Your task to perform on an android device: choose inbox layout in the gmail app Image 0: 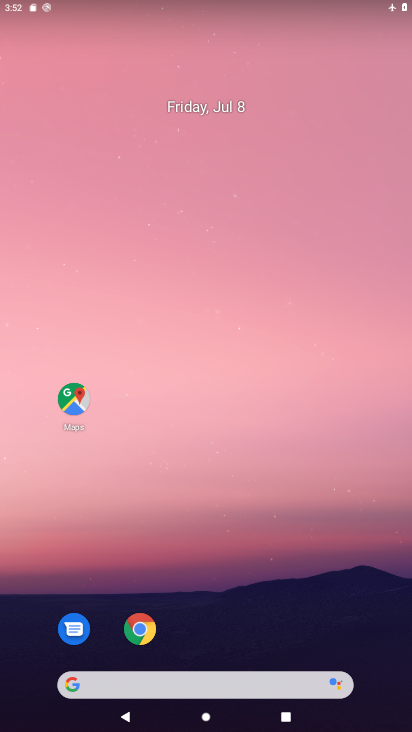
Step 0: drag from (300, 671) to (294, 258)
Your task to perform on an android device: choose inbox layout in the gmail app Image 1: 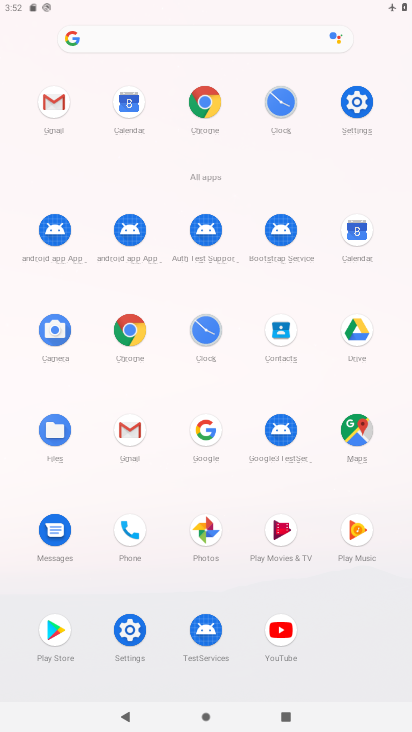
Step 1: click (62, 101)
Your task to perform on an android device: choose inbox layout in the gmail app Image 2: 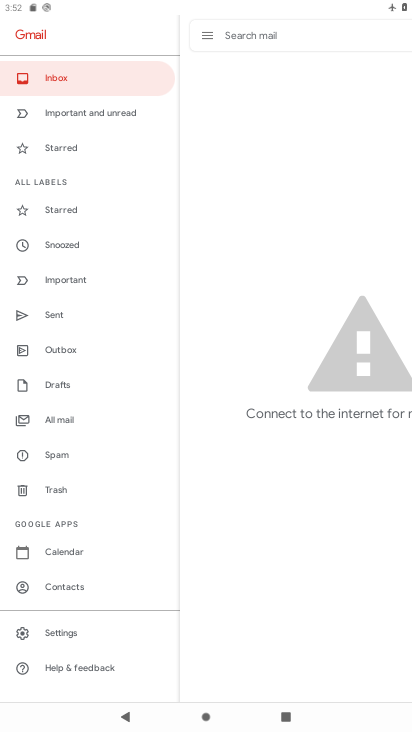
Step 2: click (81, 620)
Your task to perform on an android device: choose inbox layout in the gmail app Image 3: 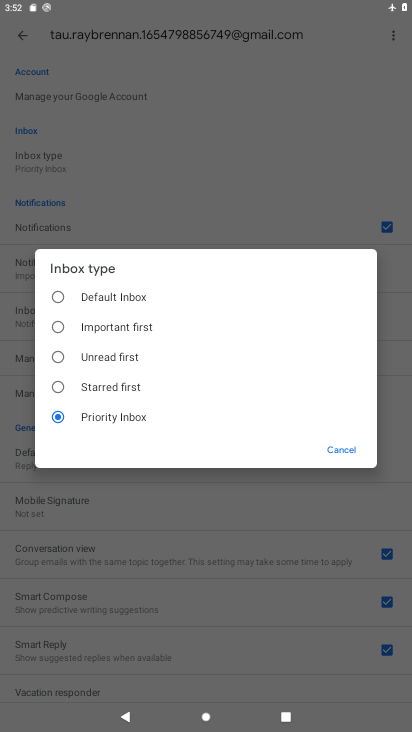
Step 3: click (107, 340)
Your task to perform on an android device: choose inbox layout in the gmail app Image 4: 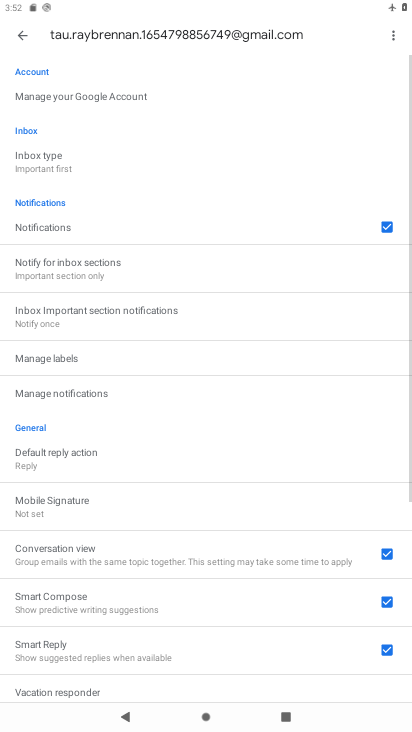
Step 4: task complete